Your task to perform on an android device: check android version Image 0: 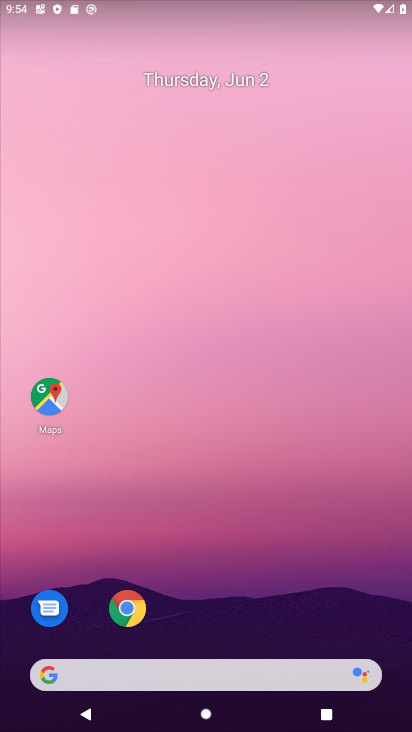
Step 0: drag from (161, 697) to (268, 63)
Your task to perform on an android device: check android version Image 1: 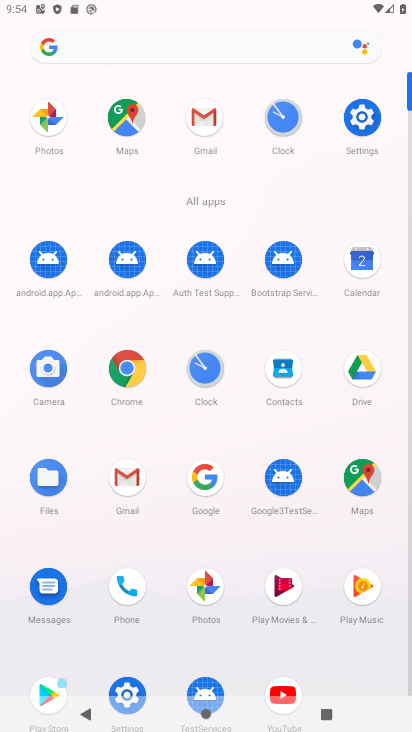
Step 1: click (126, 680)
Your task to perform on an android device: check android version Image 2: 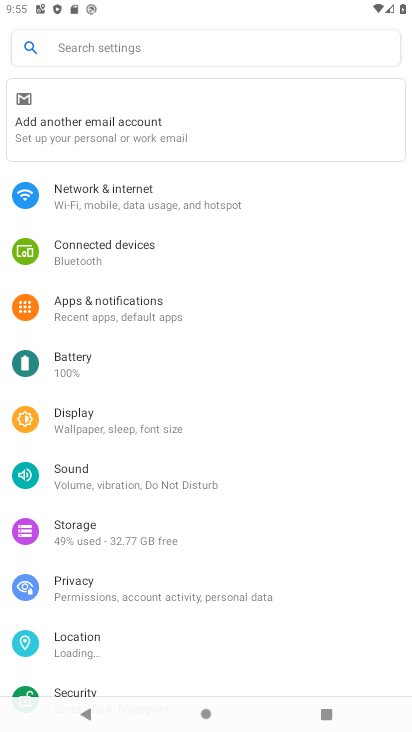
Step 2: drag from (121, 688) to (246, 150)
Your task to perform on an android device: check android version Image 3: 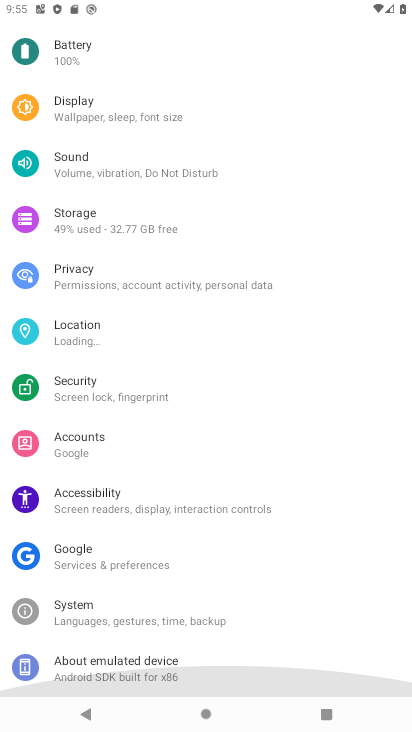
Step 3: drag from (191, 602) to (250, 248)
Your task to perform on an android device: check android version Image 4: 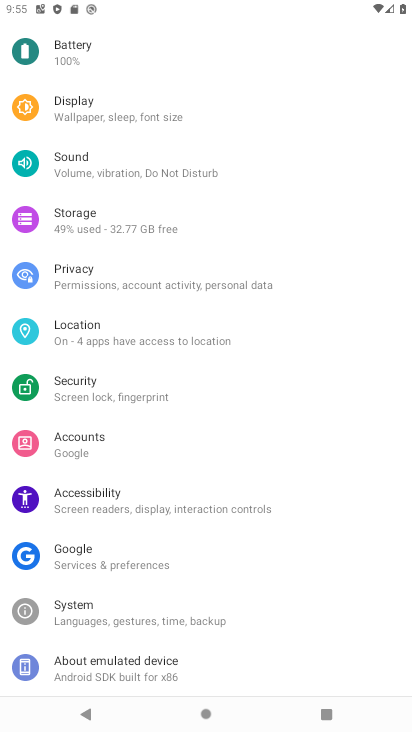
Step 4: click (210, 664)
Your task to perform on an android device: check android version Image 5: 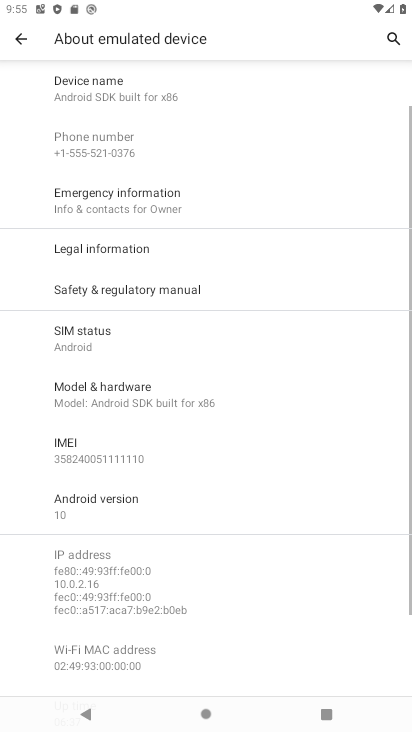
Step 5: click (161, 508)
Your task to perform on an android device: check android version Image 6: 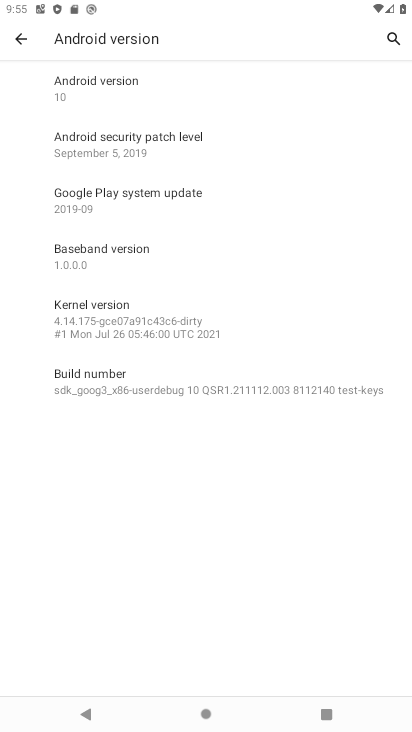
Step 6: task complete